Your task to perform on an android device: Open location settings Image 0: 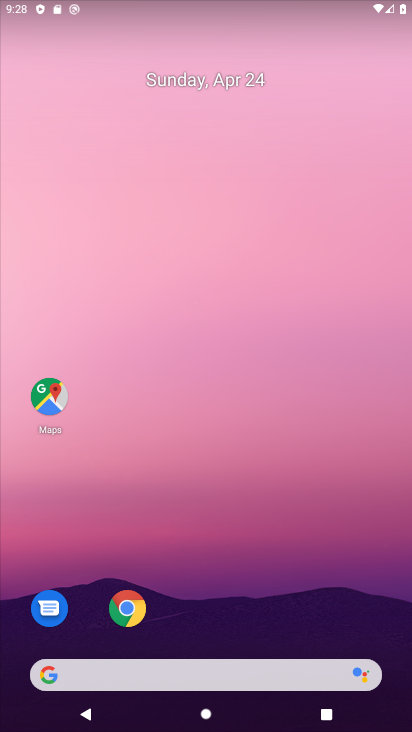
Step 0: press home button
Your task to perform on an android device: Open location settings Image 1: 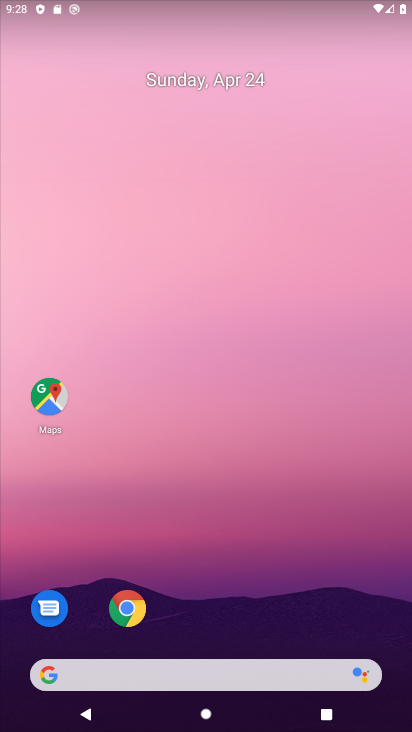
Step 1: drag from (258, 699) to (179, 113)
Your task to perform on an android device: Open location settings Image 2: 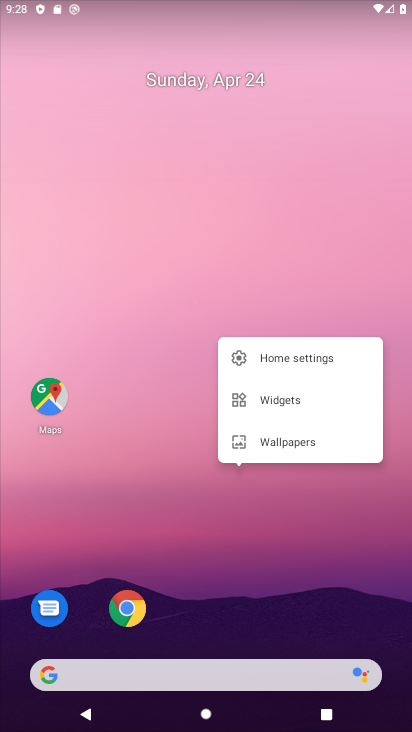
Step 2: click (193, 130)
Your task to perform on an android device: Open location settings Image 3: 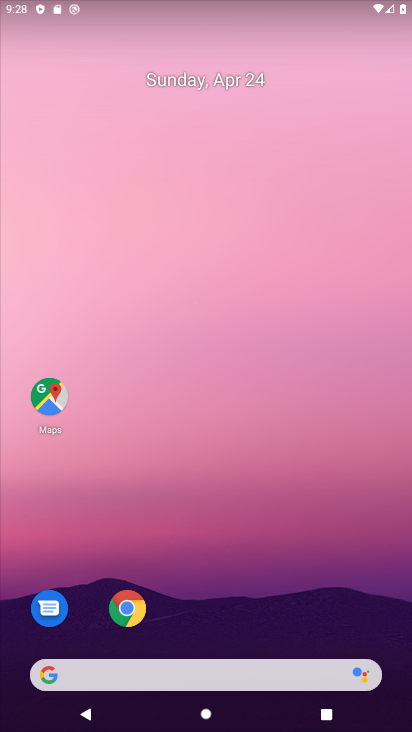
Step 3: drag from (241, 691) to (381, 85)
Your task to perform on an android device: Open location settings Image 4: 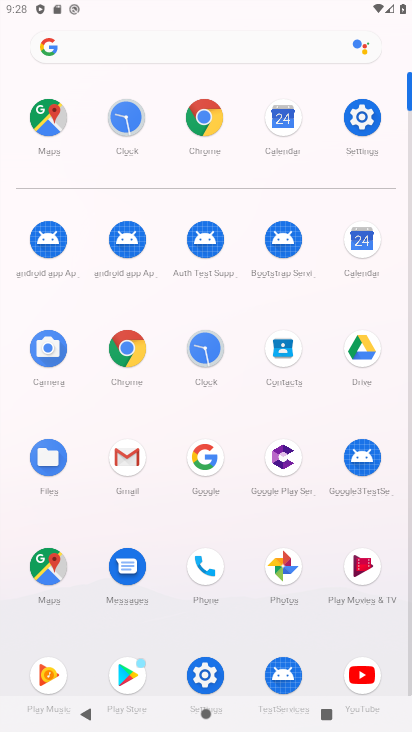
Step 4: click (370, 117)
Your task to perform on an android device: Open location settings Image 5: 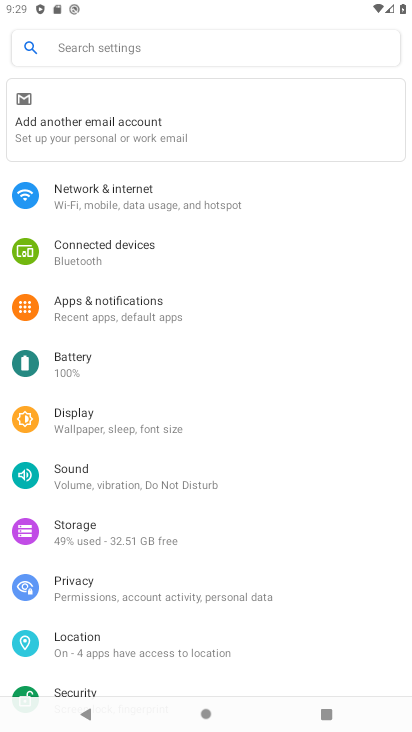
Step 5: click (113, 637)
Your task to perform on an android device: Open location settings Image 6: 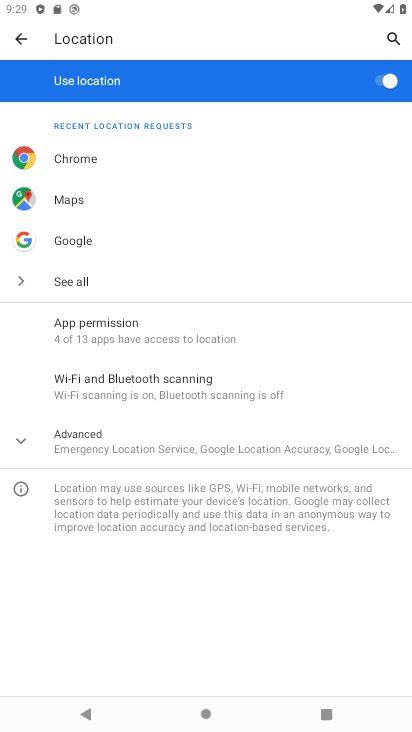
Step 6: click (55, 440)
Your task to perform on an android device: Open location settings Image 7: 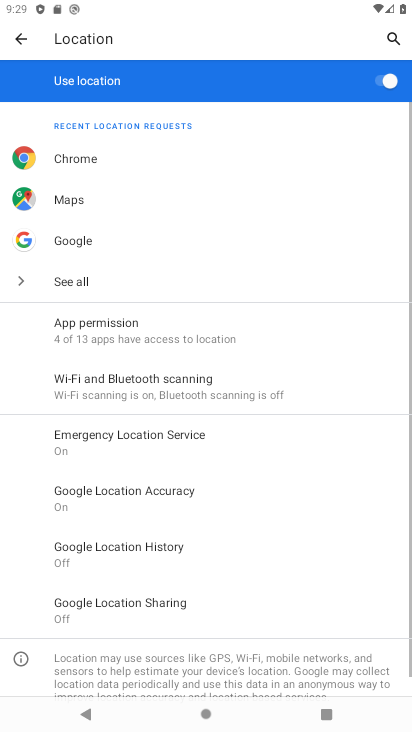
Step 7: task complete